Your task to perform on an android device: Open calendar and show me the fourth week of next month Image 0: 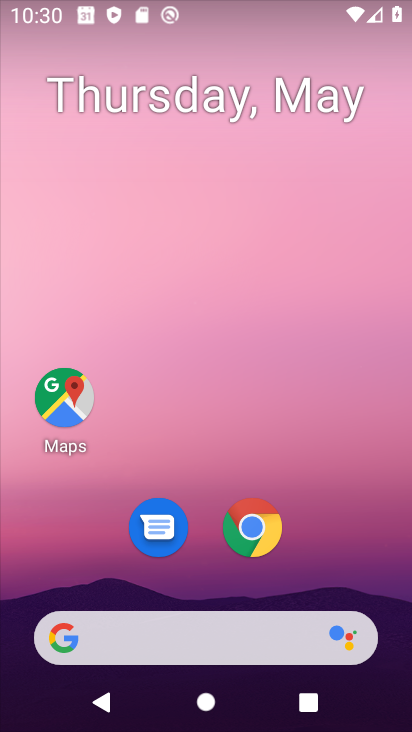
Step 0: drag from (217, 724) to (257, 164)
Your task to perform on an android device: Open calendar and show me the fourth week of next month Image 1: 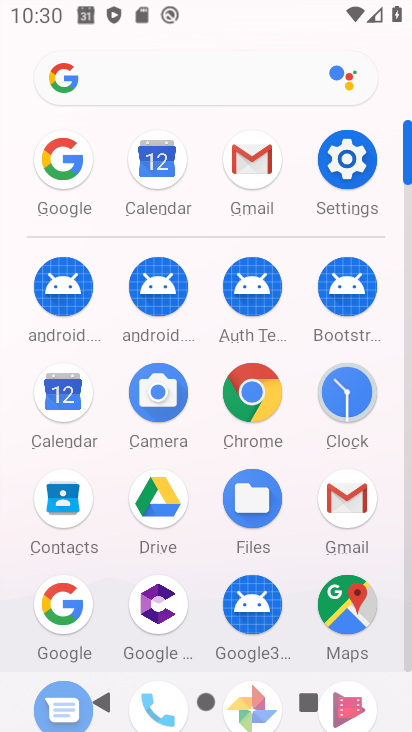
Step 1: click (52, 395)
Your task to perform on an android device: Open calendar and show me the fourth week of next month Image 2: 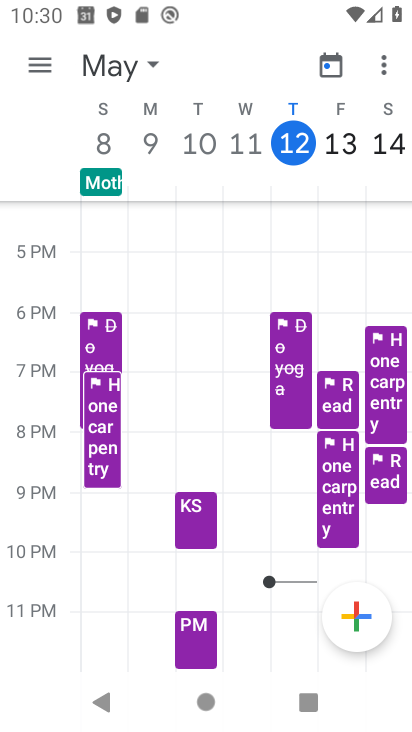
Step 2: click (152, 64)
Your task to perform on an android device: Open calendar and show me the fourth week of next month Image 3: 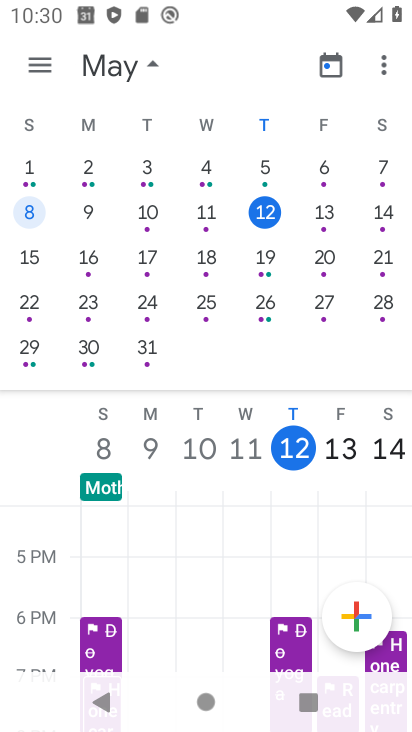
Step 3: drag from (366, 287) to (15, 284)
Your task to perform on an android device: Open calendar and show me the fourth week of next month Image 4: 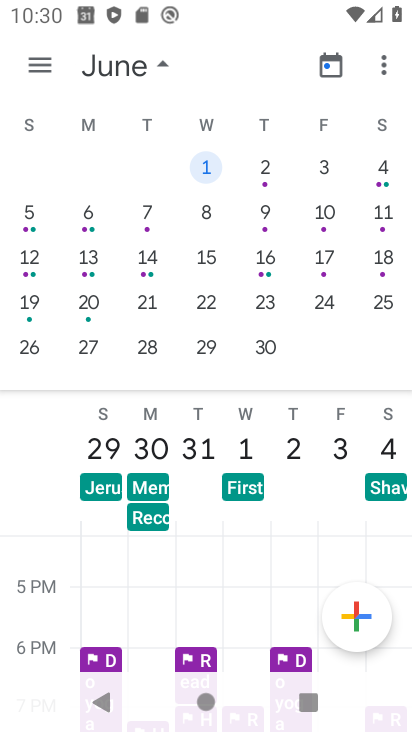
Step 4: click (86, 349)
Your task to perform on an android device: Open calendar and show me the fourth week of next month Image 5: 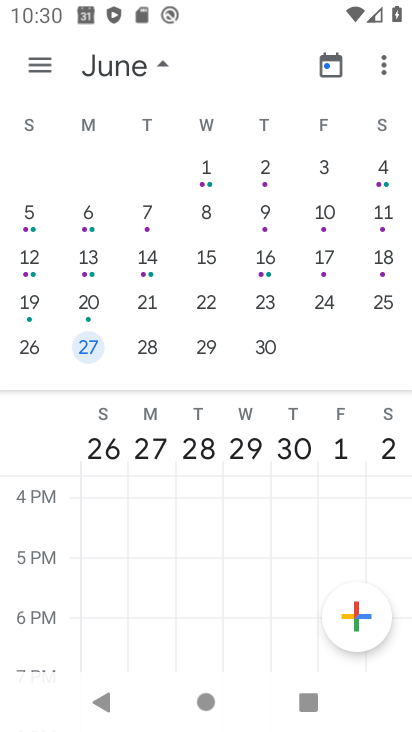
Step 5: click (38, 63)
Your task to perform on an android device: Open calendar and show me the fourth week of next month Image 6: 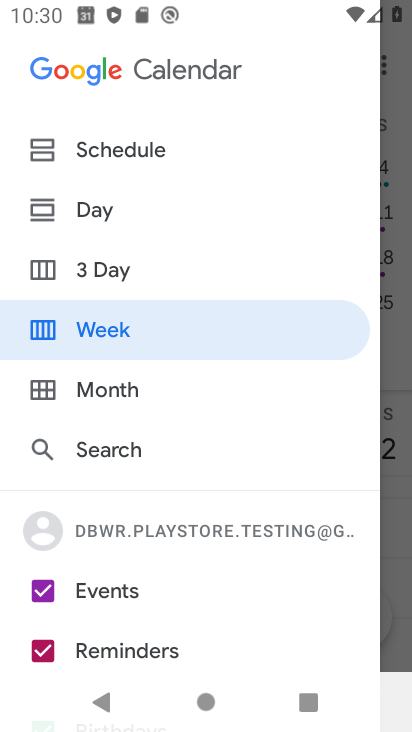
Step 6: click (101, 321)
Your task to perform on an android device: Open calendar and show me the fourth week of next month Image 7: 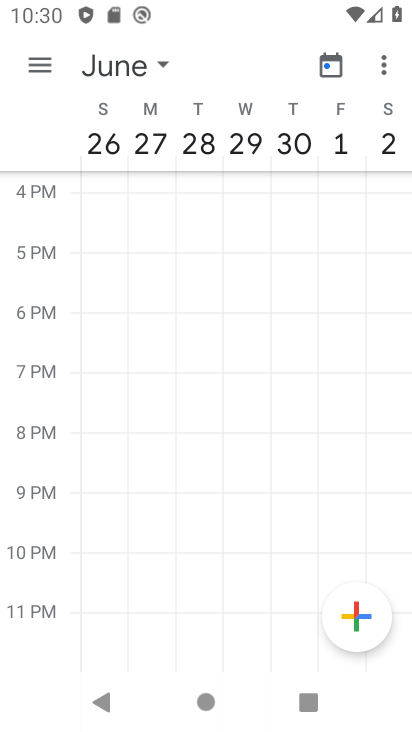
Step 7: task complete